Your task to perform on an android device: change the clock style Image 0: 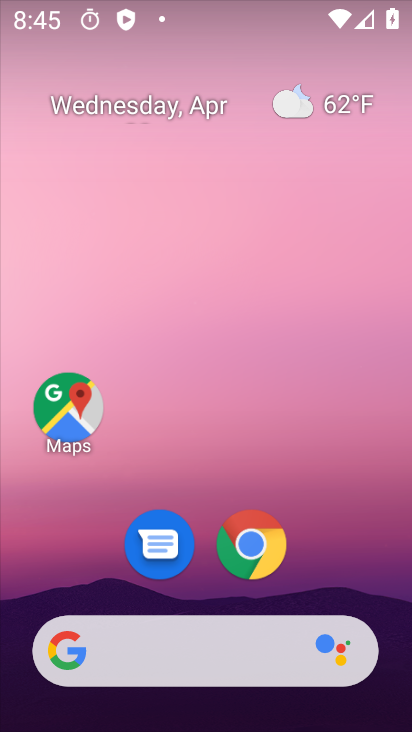
Step 0: drag from (347, 568) to (114, 291)
Your task to perform on an android device: change the clock style Image 1: 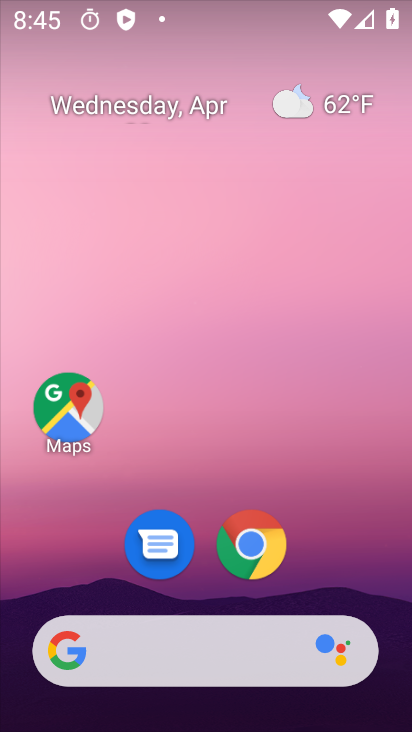
Step 1: drag from (327, 487) to (32, 40)
Your task to perform on an android device: change the clock style Image 2: 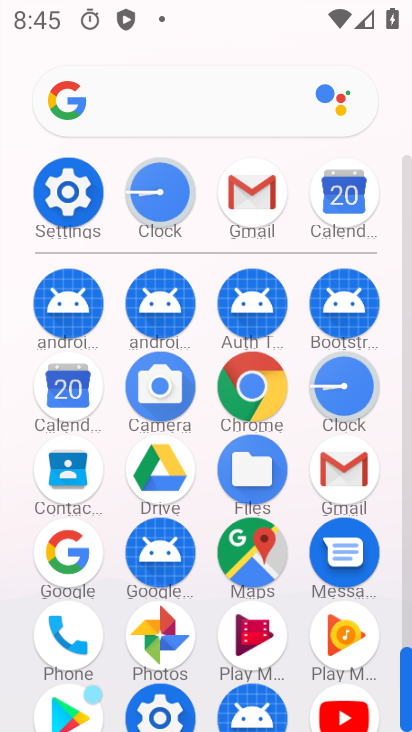
Step 2: click (359, 377)
Your task to perform on an android device: change the clock style Image 3: 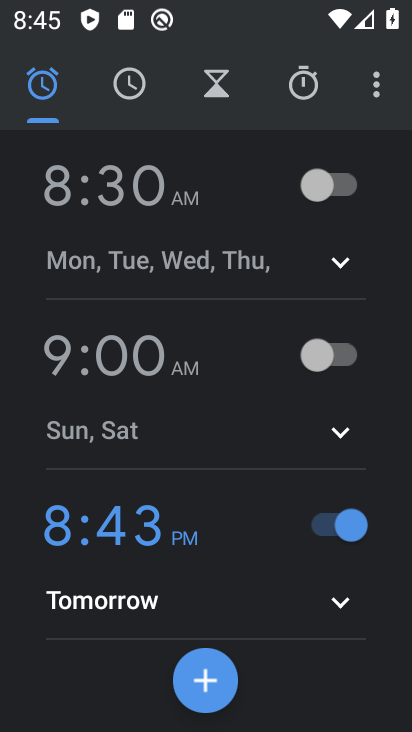
Step 3: click (374, 81)
Your task to perform on an android device: change the clock style Image 4: 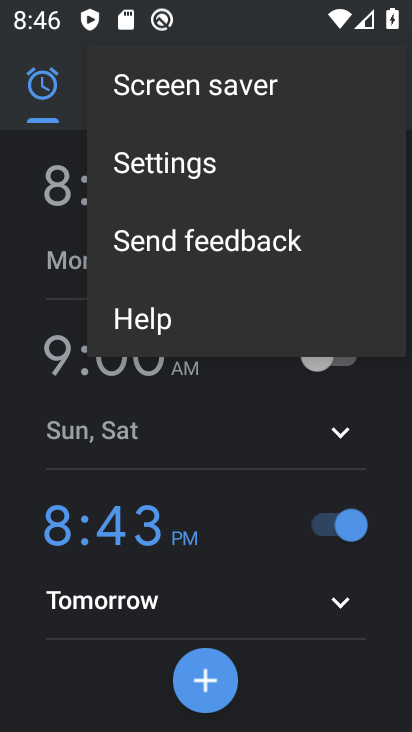
Step 4: click (194, 170)
Your task to perform on an android device: change the clock style Image 5: 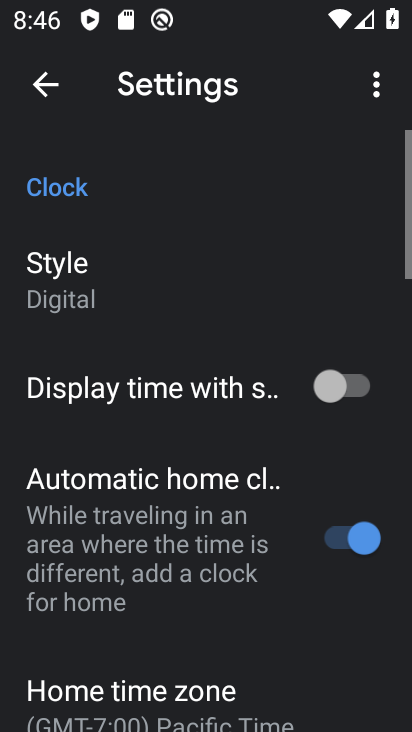
Step 5: click (70, 288)
Your task to perform on an android device: change the clock style Image 6: 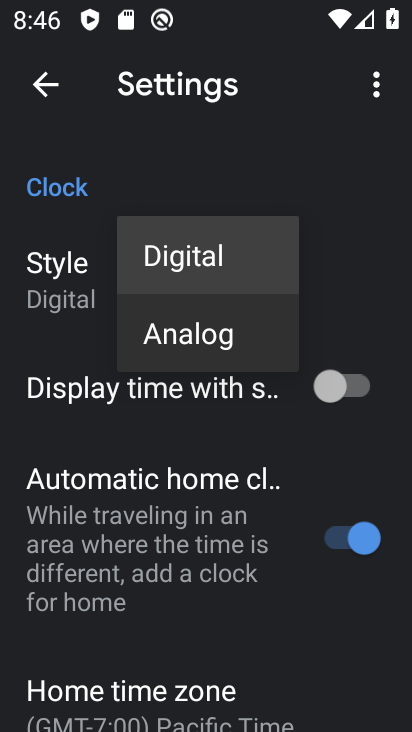
Step 6: click (206, 340)
Your task to perform on an android device: change the clock style Image 7: 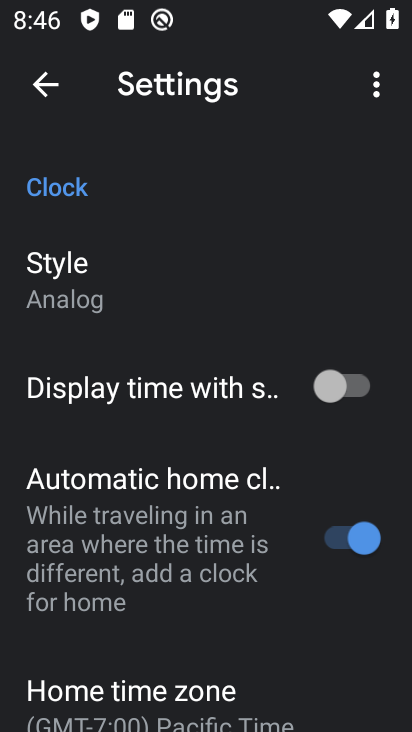
Step 7: task complete